Your task to perform on an android device: Go to Reddit.com Image 0: 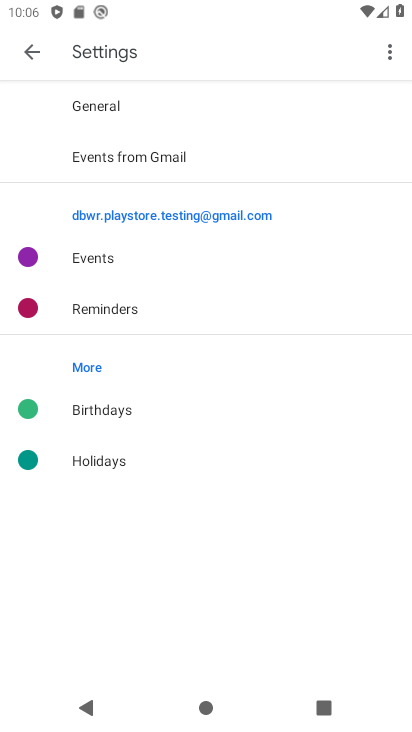
Step 0: press home button
Your task to perform on an android device: Go to Reddit.com Image 1: 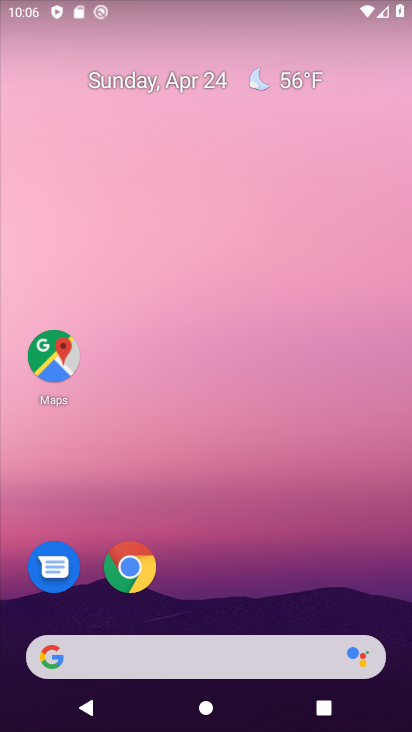
Step 1: drag from (199, 671) to (382, 19)
Your task to perform on an android device: Go to Reddit.com Image 2: 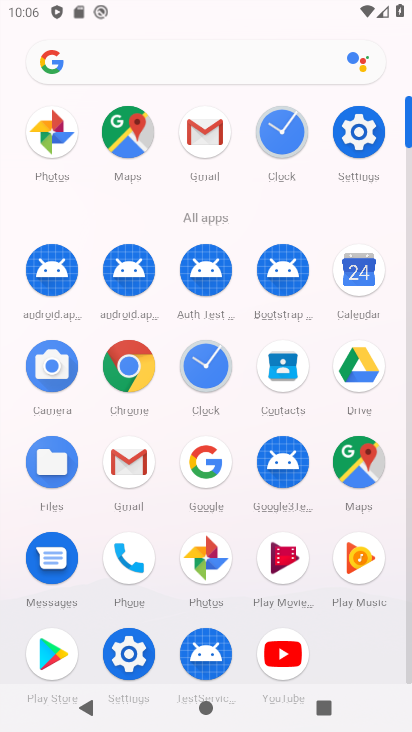
Step 2: click (123, 374)
Your task to perform on an android device: Go to Reddit.com Image 3: 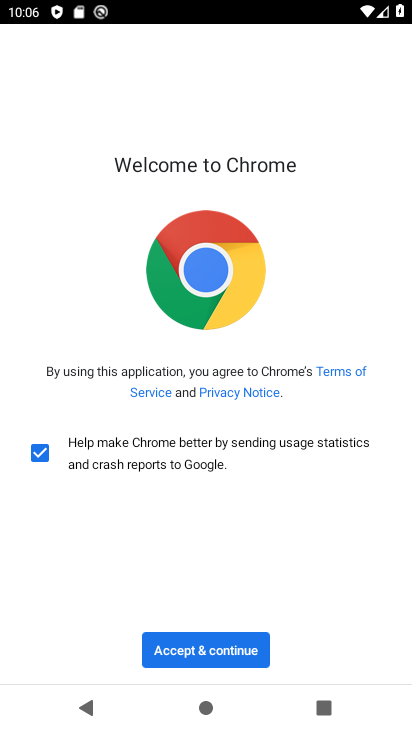
Step 3: click (187, 643)
Your task to perform on an android device: Go to Reddit.com Image 4: 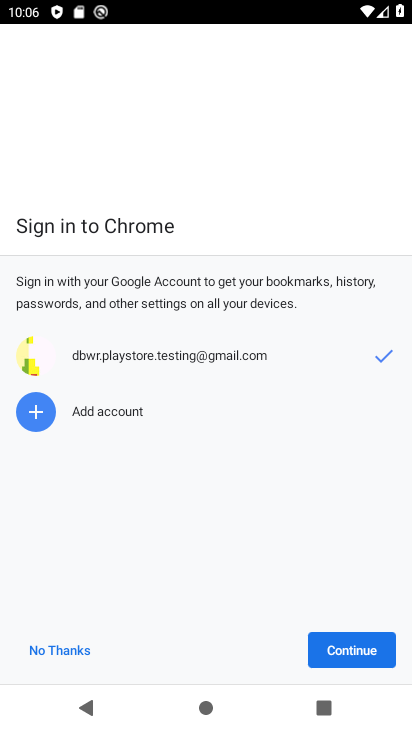
Step 4: click (341, 644)
Your task to perform on an android device: Go to Reddit.com Image 5: 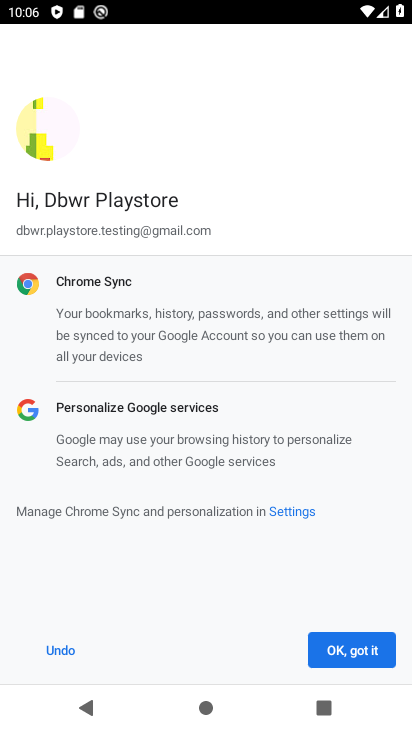
Step 5: click (338, 644)
Your task to perform on an android device: Go to Reddit.com Image 6: 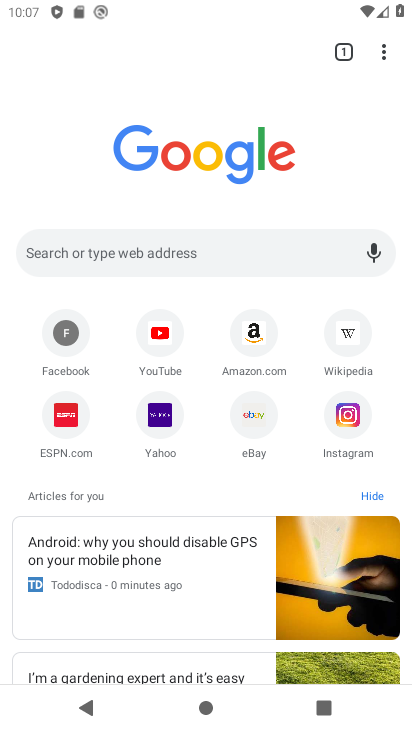
Step 6: click (192, 251)
Your task to perform on an android device: Go to Reddit.com Image 7: 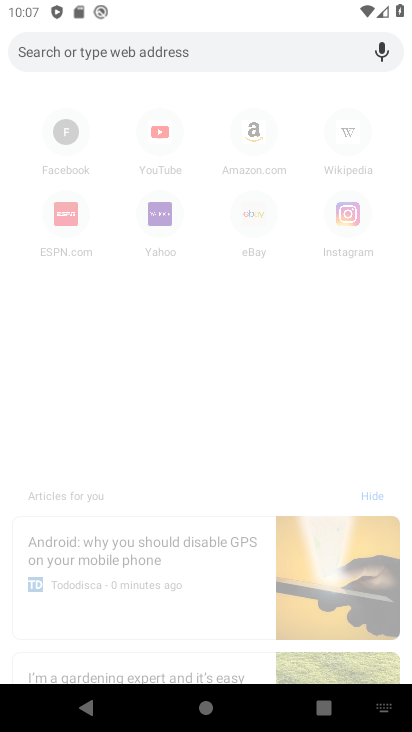
Step 7: type "reddit.com"
Your task to perform on an android device: Go to Reddit.com Image 8: 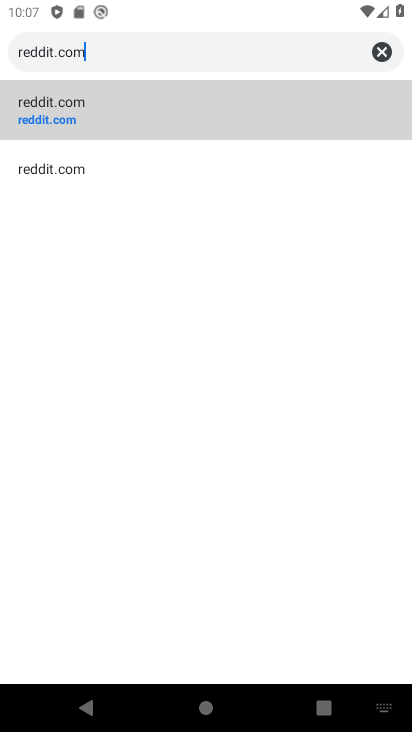
Step 8: click (74, 172)
Your task to perform on an android device: Go to Reddit.com Image 9: 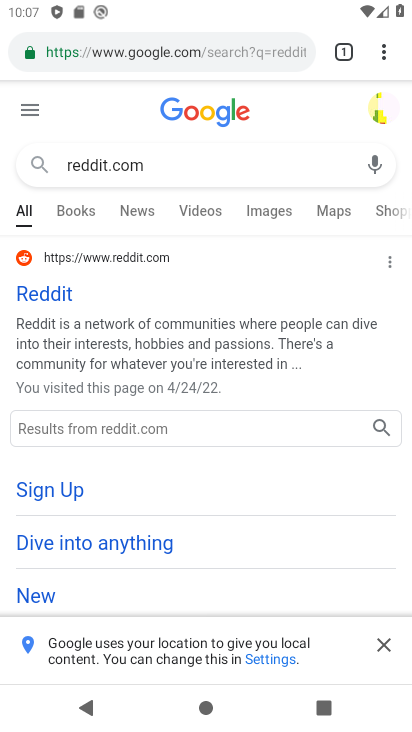
Step 9: click (57, 296)
Your task to perform on an android device: Go to Reddit.com Image 10: 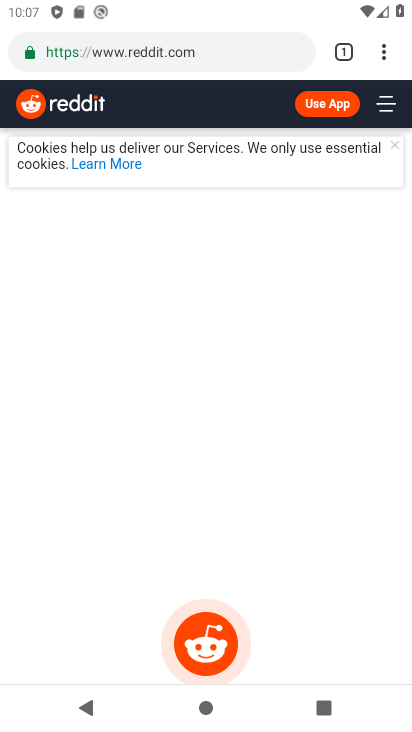
Step 10: task complete